Your task to perform on an android device: Open network settings Image 0: 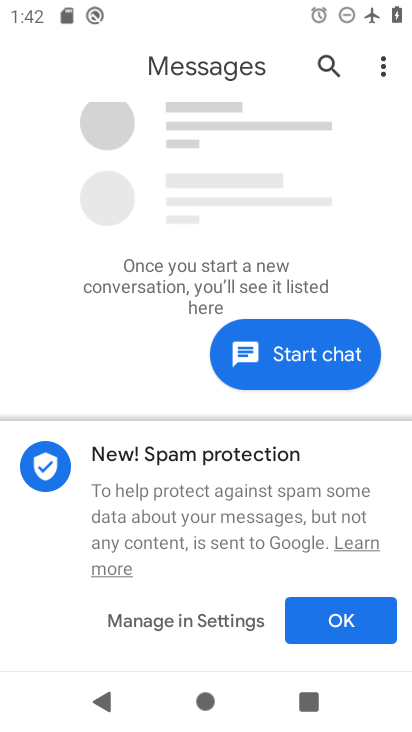
Step 0: press home button
Your task to perform on an android device: Open network settings Image 1: 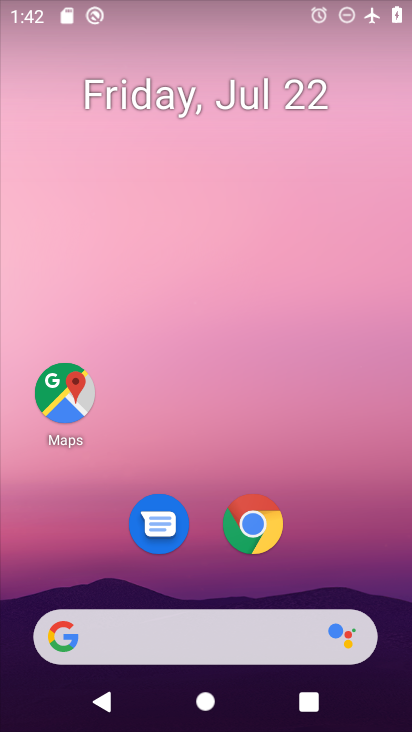
Step 1: drag from (332, 544) to (350, 35)
Your task to perform on an android device: Open network settings Image 2: 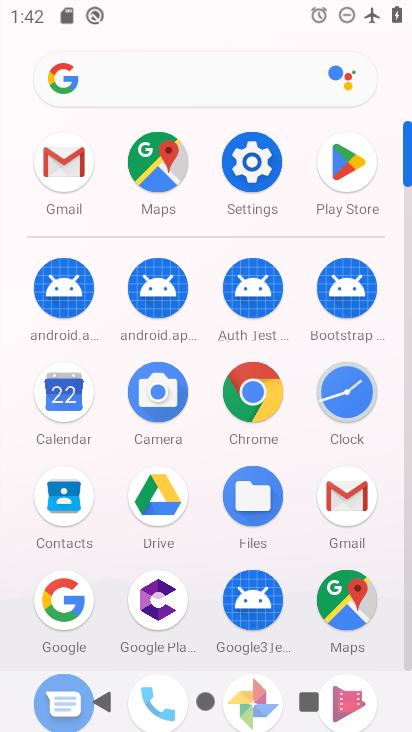
Step 2: click (260, 163)
Your task to perform on an android device: Open network settings Image 3: 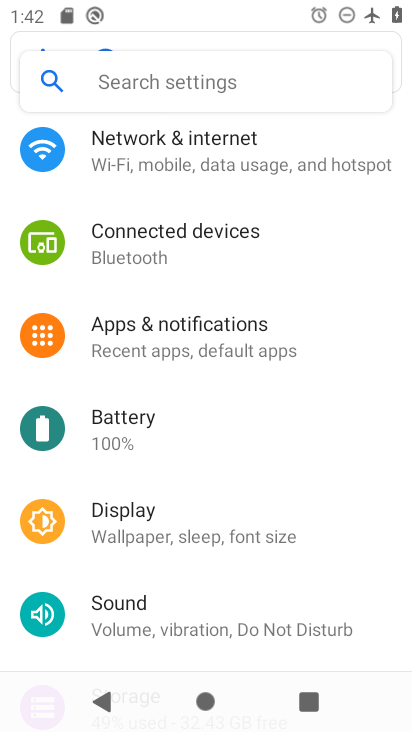
Step 3: click (262, 153)
Your task to perform on an android device: Open network settings Image 4: 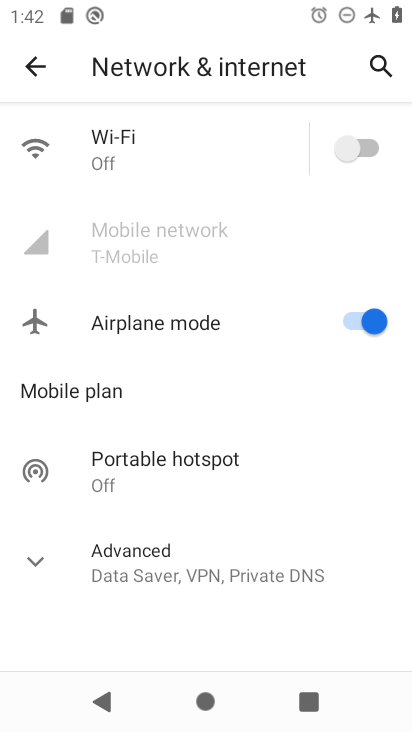
Step 4: task complete